Your task to perform on an android device: find photos in the google photos app Image 0: 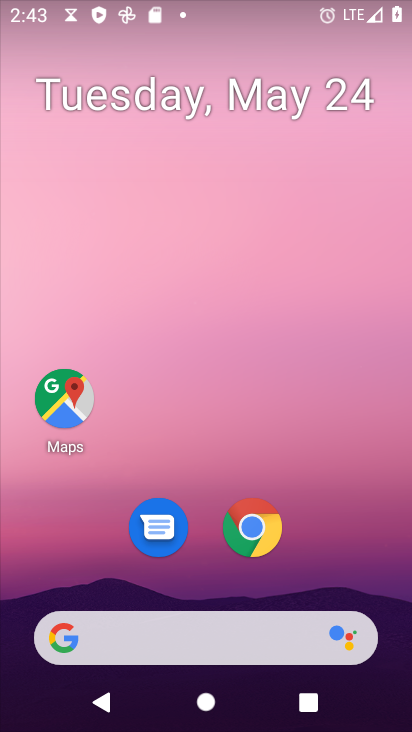
Step 0: press home button
Your task to perform on an android device: find photos in the google photos app Image 1: 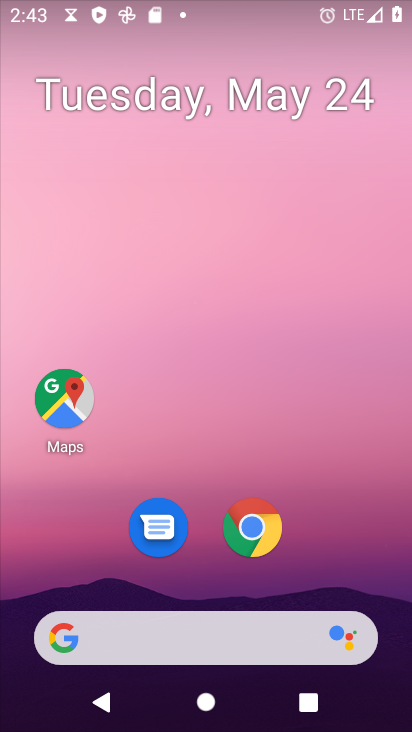
Step 1: drag from (208, 644) to (329, 39)
Your task to perform on an android device: find photos in the google photos app Image 2: 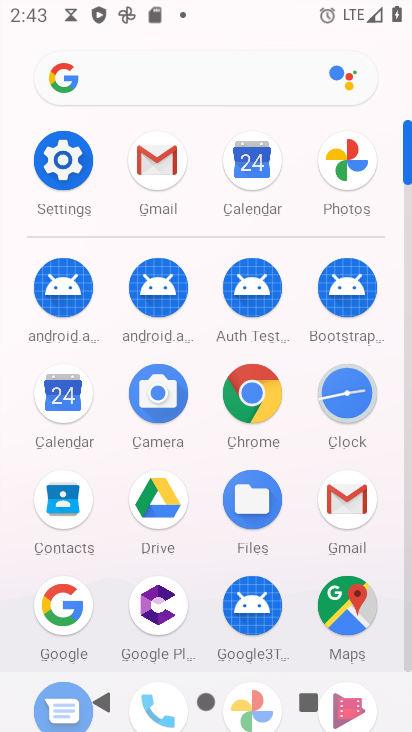
Step 2: drag from (294, 521) to (379, 40)
Your task to perform on an android device: find photos in the google photos app Image 3: 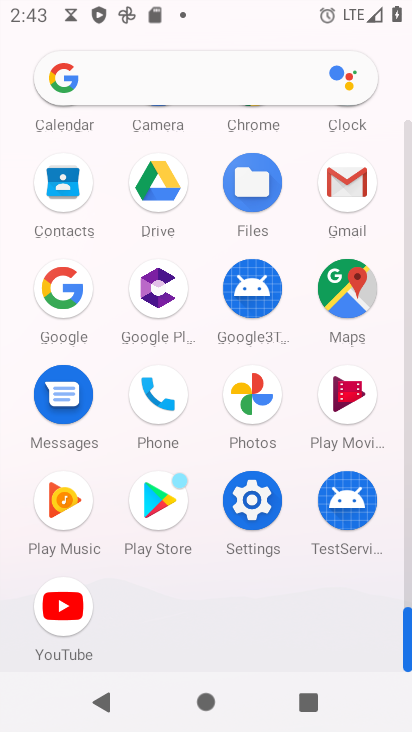
Step 3: click (260, 409)
Your task to perform on an android device: find photos in the google photos app Image 4: 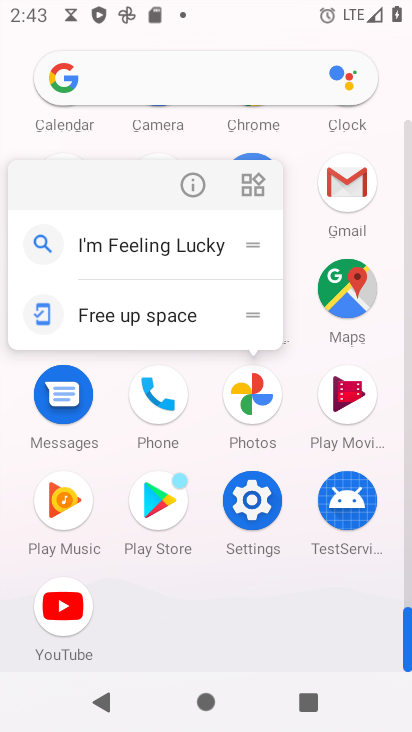
Step 4: click (249, 403)
Your task to perform on an android device: find photos in the google photos app Image 5: 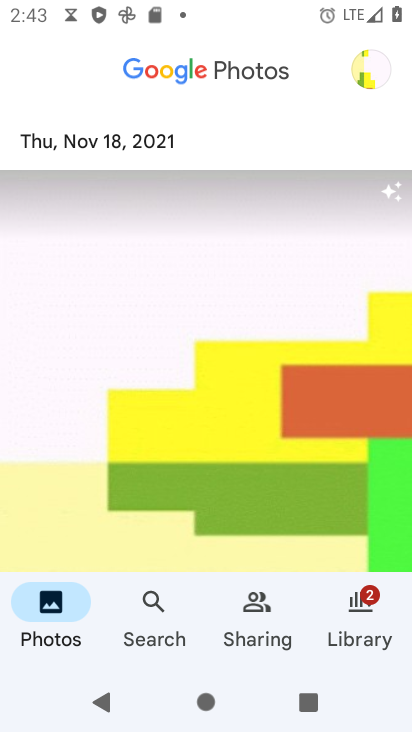
Step 5: task complete